Your task to perform on an android device: Is it going to rain today? Image 0: 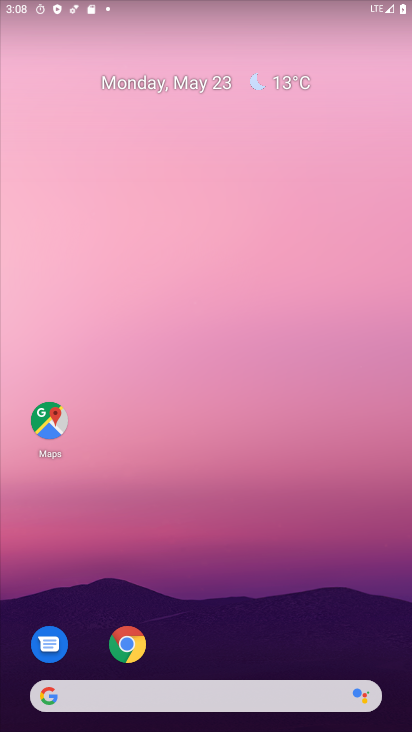
Step 0: click (195, 693)
Your task to perform on an android device: Is it going to rain today? Image 1: 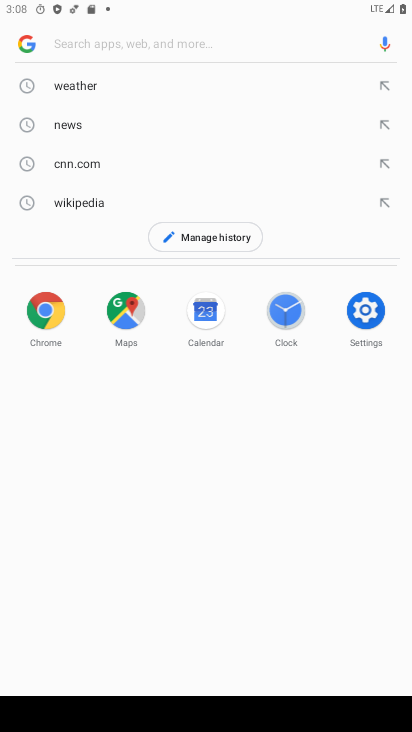
Step 1: click (58, 85)
Your task to perform on an android device: Is it going to rain today? Image 2: 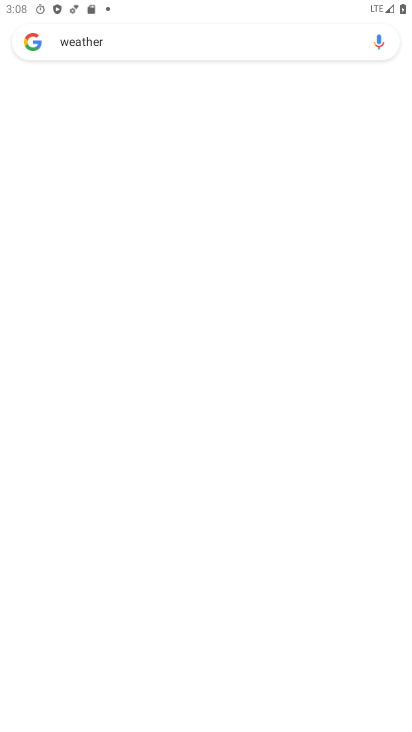
Step 2: task complete